Your task to perform on an android device: turn off notifications in google photos Image 0: 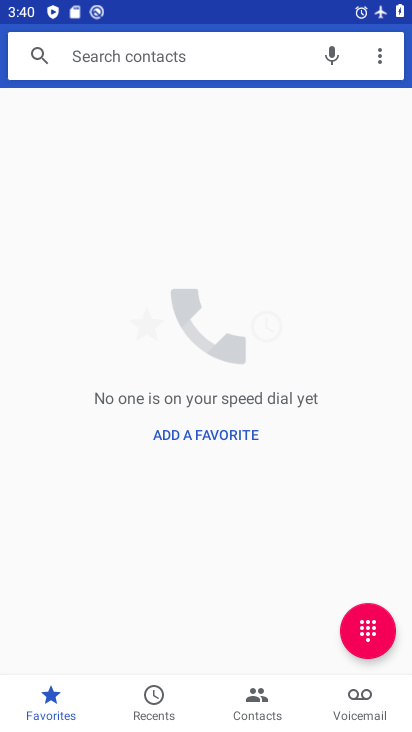
Step 0: press home button
Your task to perform on an android device: turn off notifications in google photos Image 1: 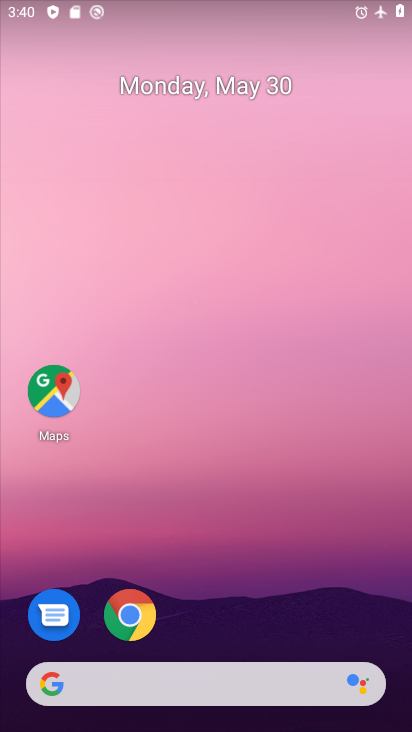
Step 1: drag from (204, 569) to (269, 55)
Your task to perform on an android device: turn off notifications in google photos Image 2: 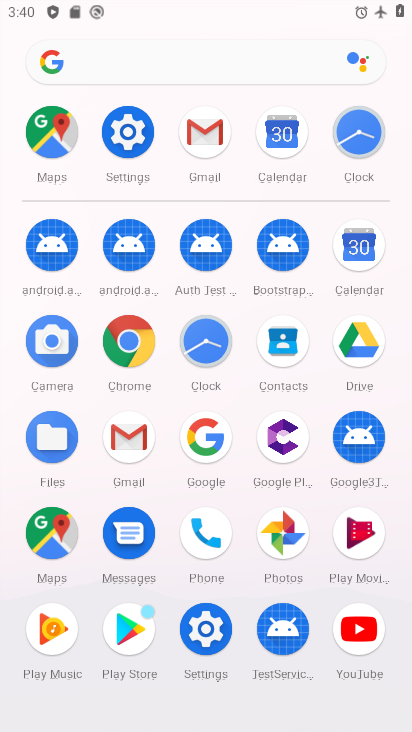
Step 2: click (276, 529)
Your task to perform on an android device: turn off notifications in google photos Image 3: 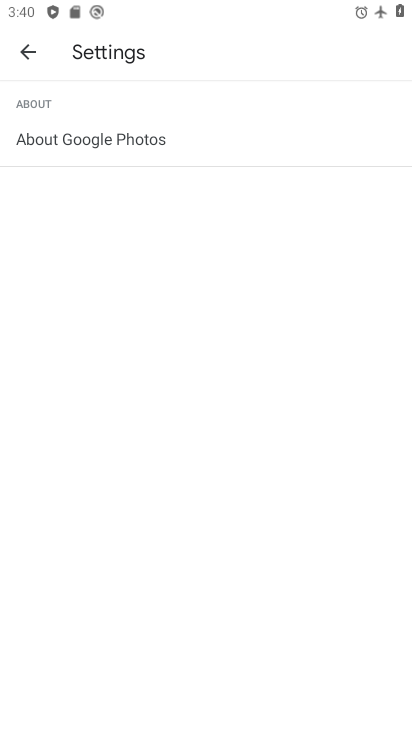
Step 3: click (25, 49)
Your task to perform on an android device: turn off notifications in google photos Image 4: 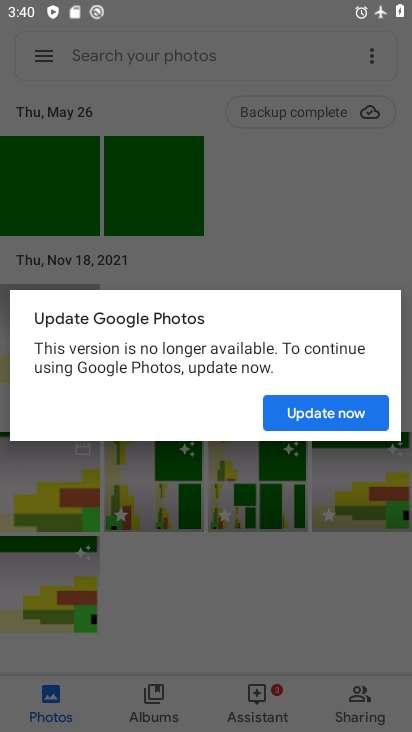
Step 4: click (310, 416)
Your task to perform on an android device: turn off notifications in google photos Image 5: 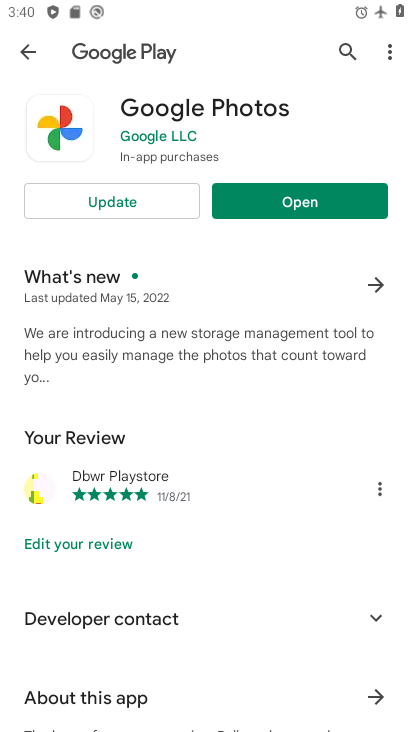
Step 5: click (310, 200)
Your task to perform on an android device: turn off notifications in google photos Image 6: 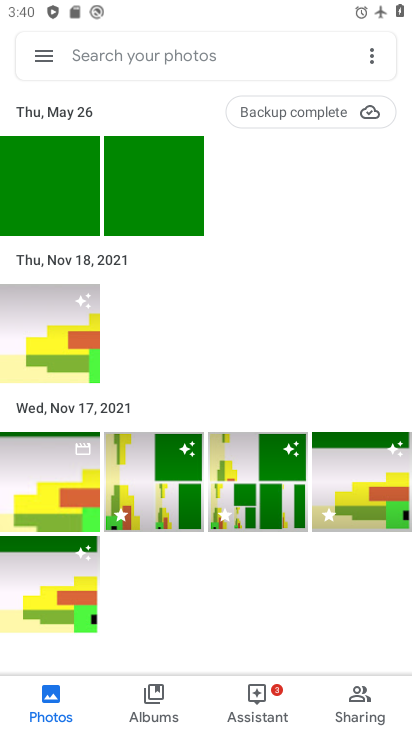
Step 6: click (38, 52)
Your task to perform on an android device: turn off notifications in google photos Image 7: 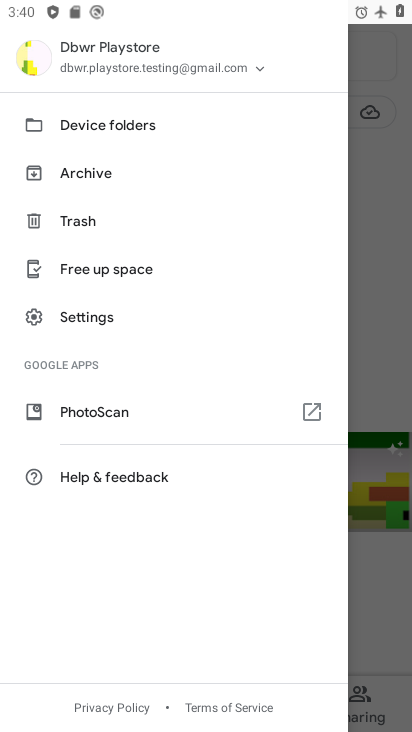
Step 7: click (81, 311)
Your task to perform on an android device: turn off notifications in google photos Image 8: 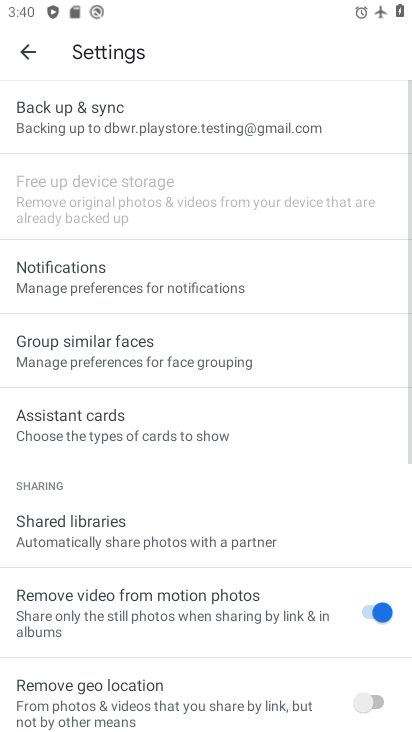
Step 8: click (119, 279)
Your task to perform on an android device: turn off notifications in google photos Image 9: 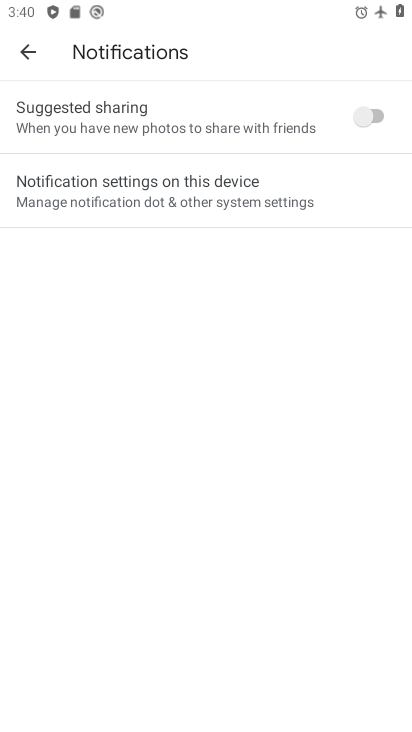
Step 9: click (223, 187)
Your task to perform on an android device: turn off notifications in google photos Image 10: 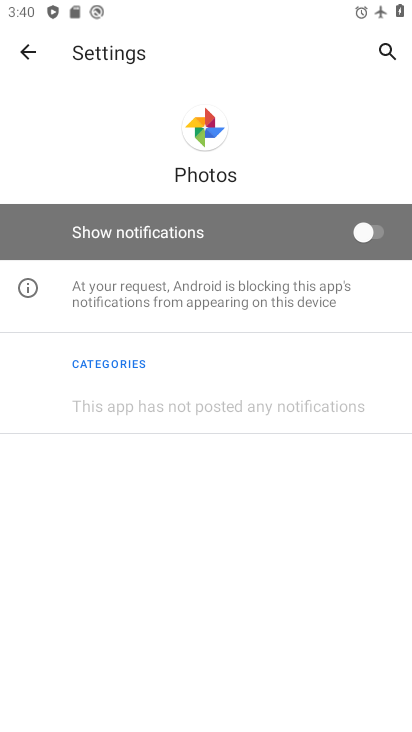
Step 10: task complete